Your task to perform on an android device: Open Chrome and go to settings Image 0: 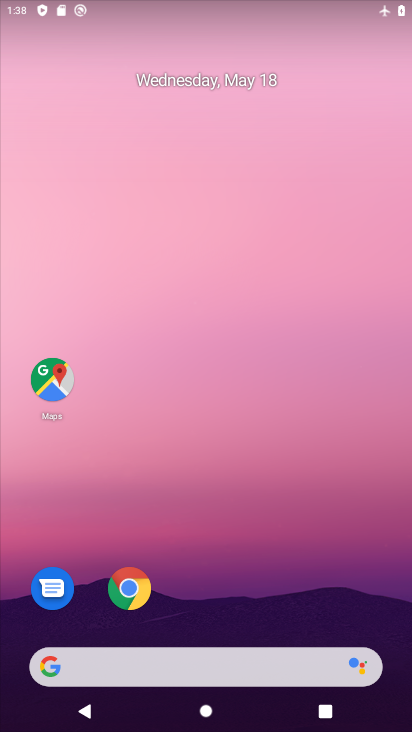
Step 0: click (125, 590)
Your task to perform on an android device: Open Chrome and go to settings Image 1: 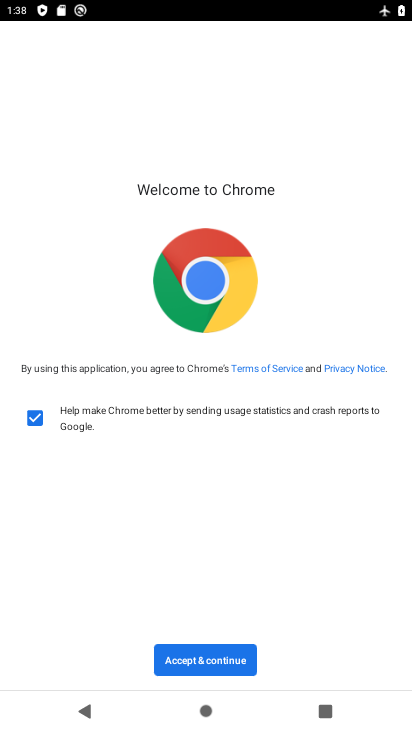
Step 1: click (170, 666)
Your task to perform on an android device: Open Chrome and go to settings Image 2: 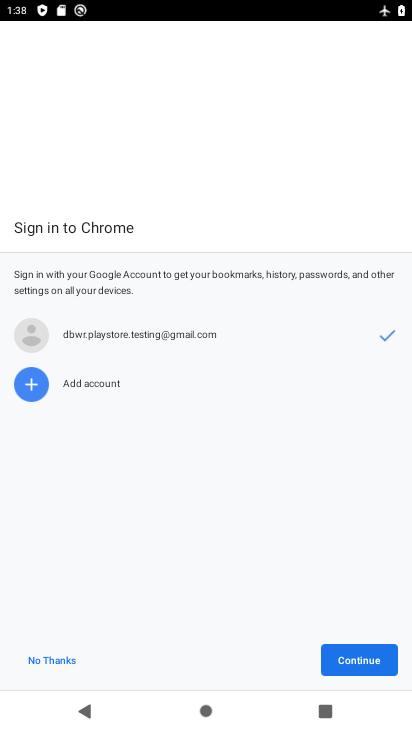
Step 2: click (39, 660)
Your task to perform on an android device: Open Chrome and go to settings Image 3: 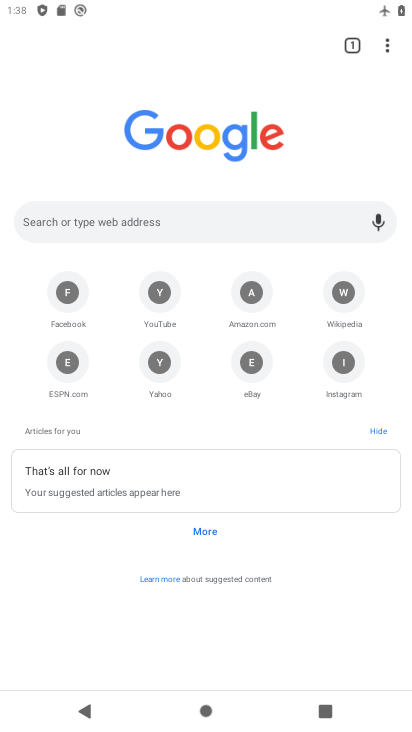
Step 3: click (385, 49)
Your task to perform on an android device: Open Chrome and go to settings Image 4: 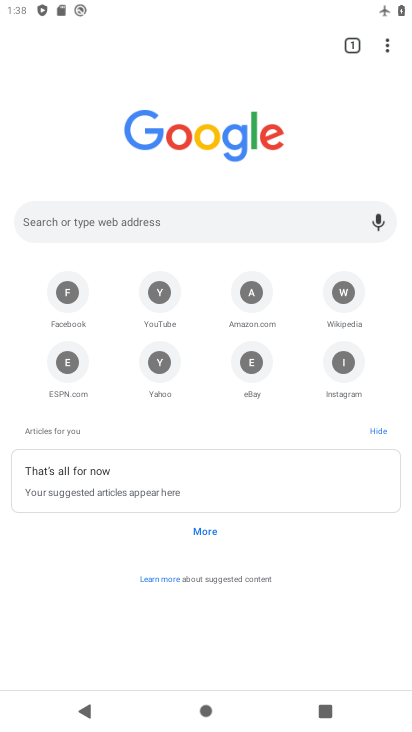
Step 4: click (388, 49)
Your task to perform on an android device: Open Chrome and go to settings Image 5: 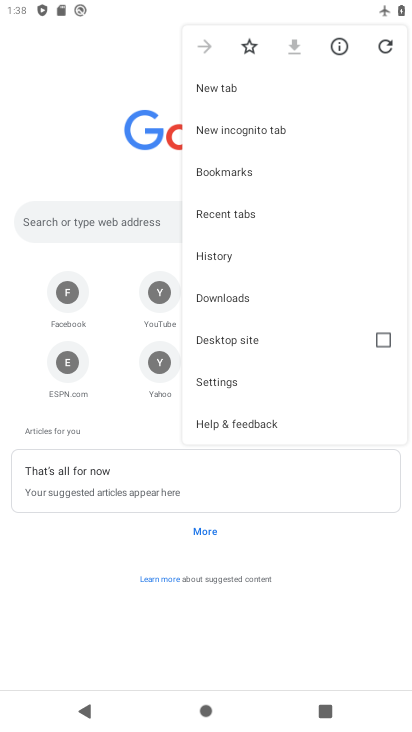
Step 5: click (210, 380)
Your task to perform on an android device: Open Chrome and go to settings Image 6: 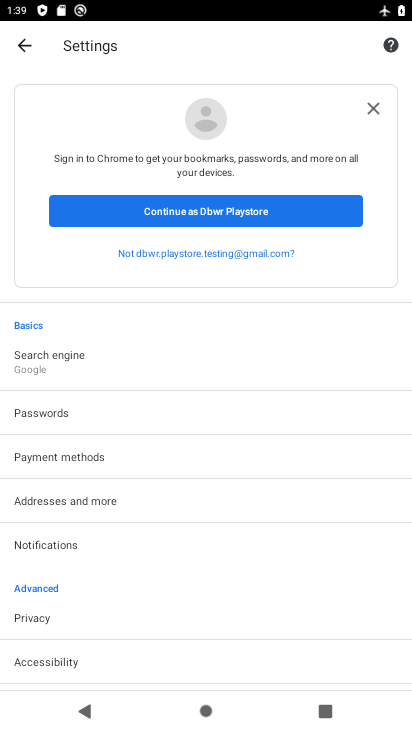
Step 6: task complete